Your task to perform on an android device: Is it going to rain tomorrow? Image 0: 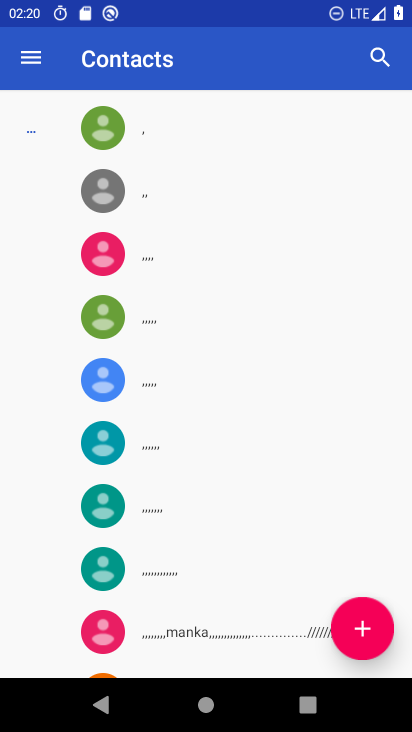
Step 0: press home button
Your task to perform on an android device: Is it going to rain tomorrow? Image 1: 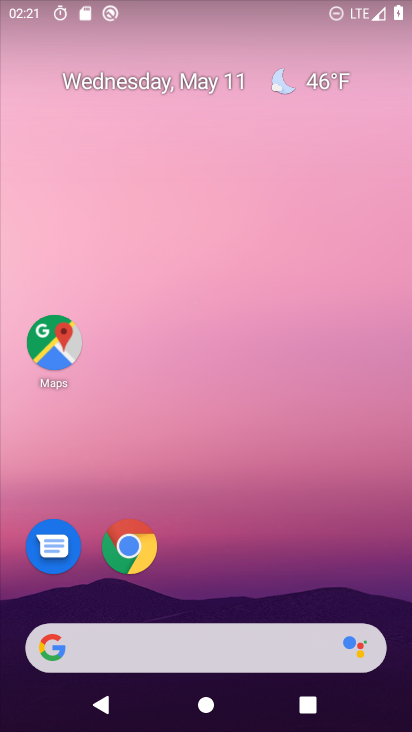
Step 1: click (128, 658)
Your task to perform on an android device: Is it going to rain tomorrow? Image 2: 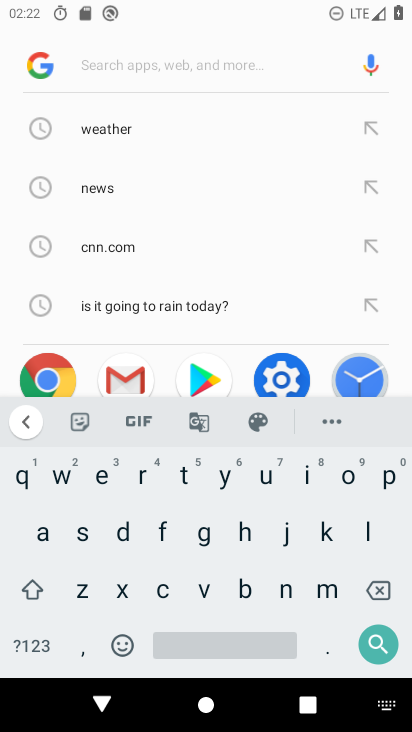
Step 2: drag from (160, 305) to (154, 243)
Your task to perform on an android device: Is it going to rain tomorrow? Image 3: 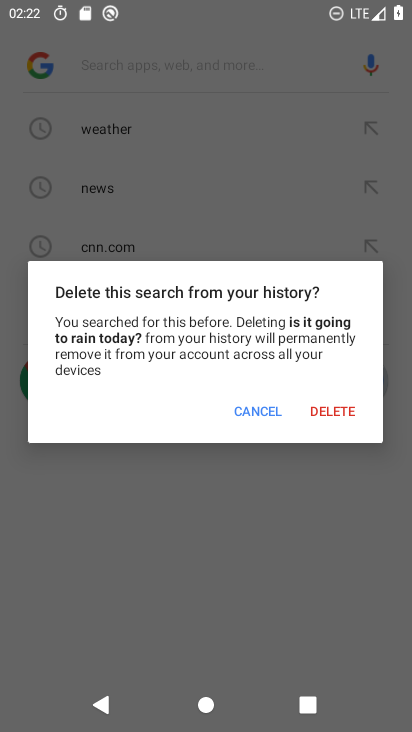
Step 3: click (244, 403)
Your task to perform on an android device: Is it going to rain tomorrow? Image 4: 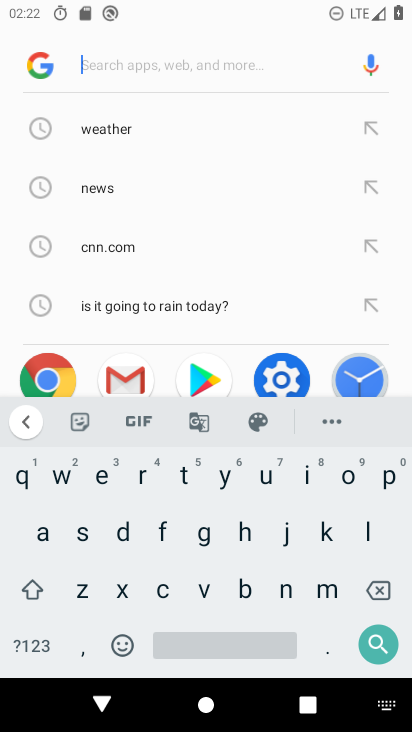
Step 4: click (139, 134)
Your task to perform on an android device: Is it going to rain tomorrow? Image 5: 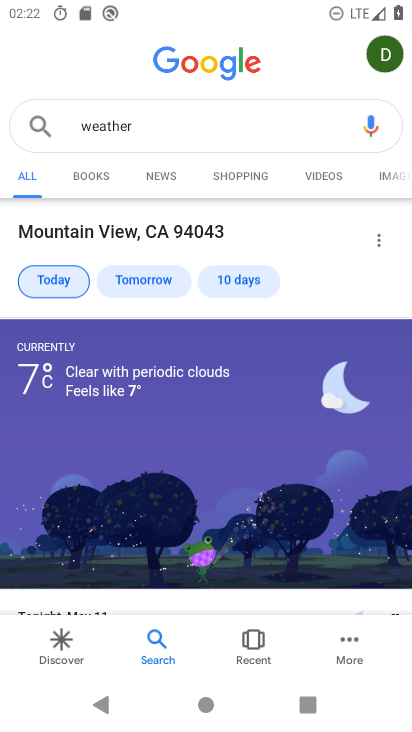
Step 5: task complete